Your task to perform on an android device: toggle notification dots Image 0: 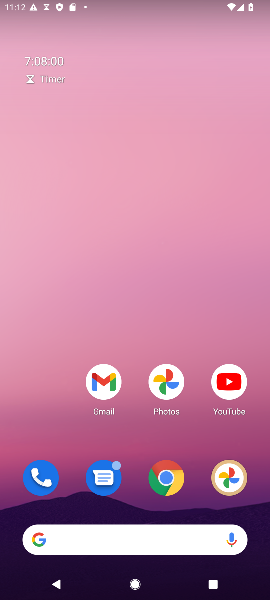
Step 0: drag from (210, 440) to (161, 127)
Your task to perform on an android device: toggle notification dots Image 1: 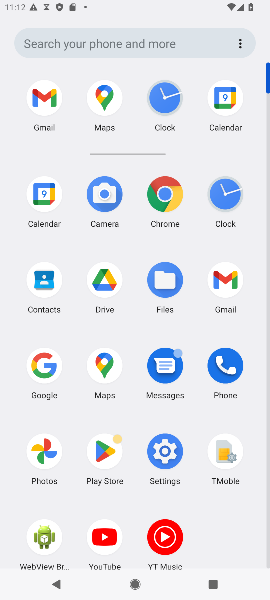
Step 1: click (166, 453)
Your task to perform on an android device: toggle notification dots Image 2: 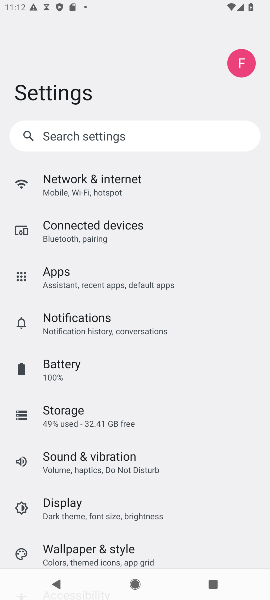
Step 2: click (141, 317)
Your task to perform on an android device: toggle notification dots Image 3: 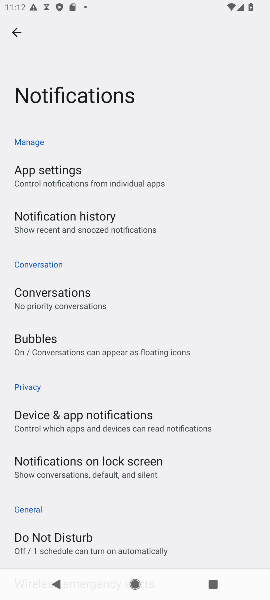
Step 3: drag from (156, 527) to (140, 175)
Your task to perform on an android device: toggle notification dots Image 4: 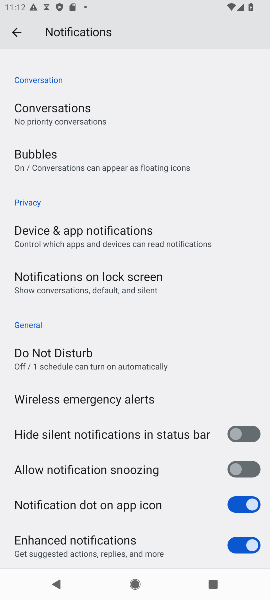
Step 4: click (237, 502)
Your task to perform on an android device: toggle notification dots Image 5: 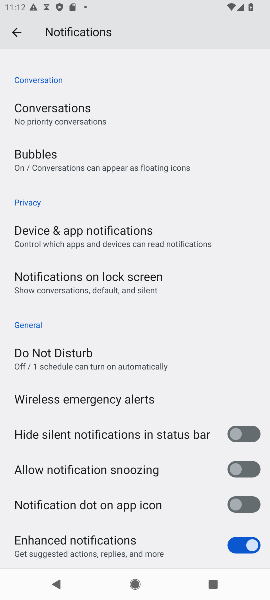
Step 5: task complete